Your task to perform on an android device: turn off priority inbox in the gmail app Image 0: 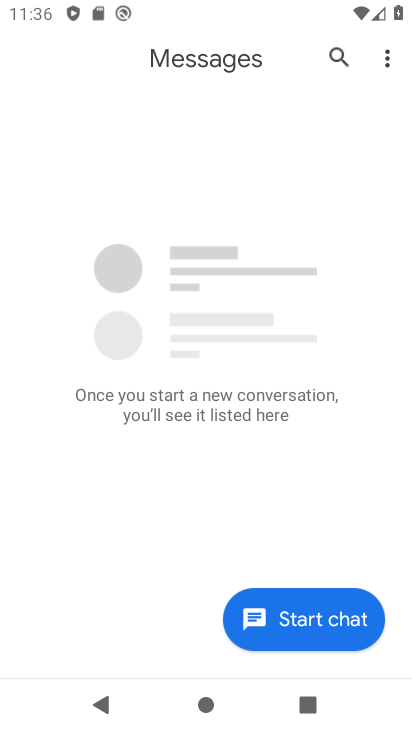
Step 0: press home button
Your task to perform on an android device: turn off priority inbox in the gmail app Image 1: 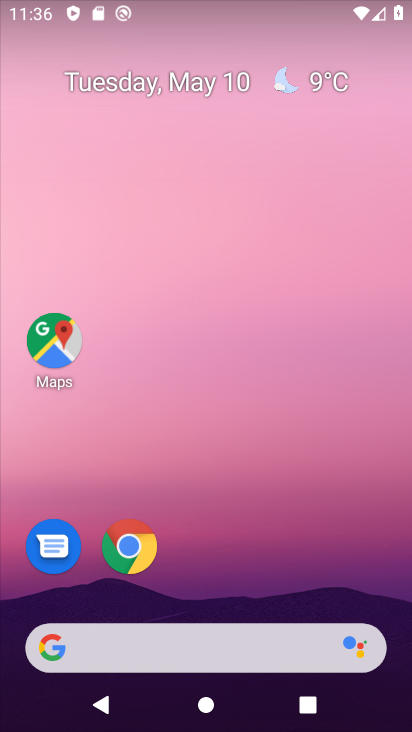
Step 1: drag from (172, 410) to (210, 67)
Your task to perform on an android device: turn off priority inbox in the gmail app Image 2: 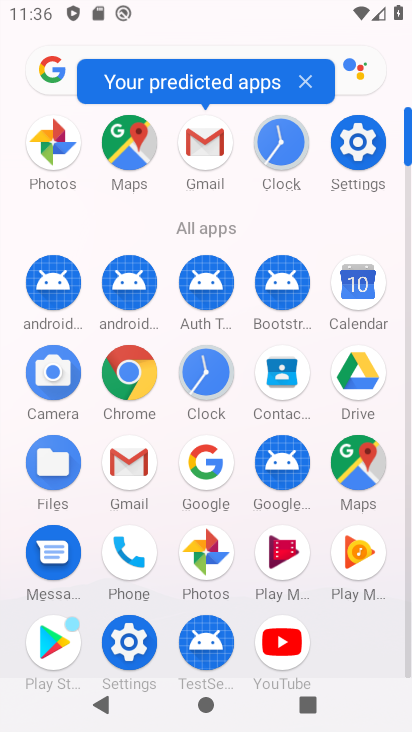
Step 2: click (207, 151)
Your task to perform on an android device: turn off priority inbox in the gmail app Image 3: 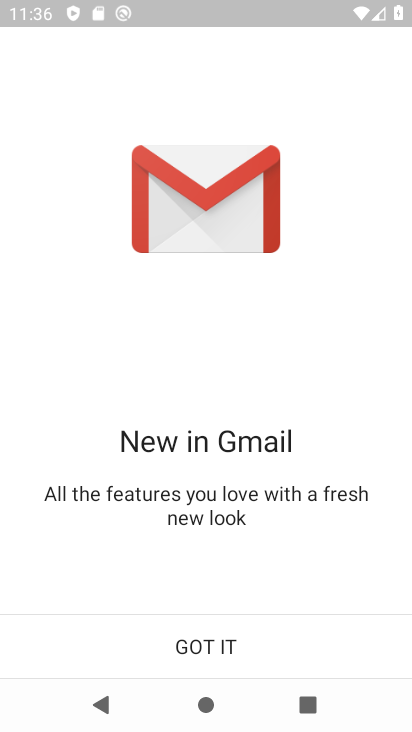
Step 3: click (219, 659)
Your task to perform on an android device: turn off priority inbox in the gmail app Image 4: 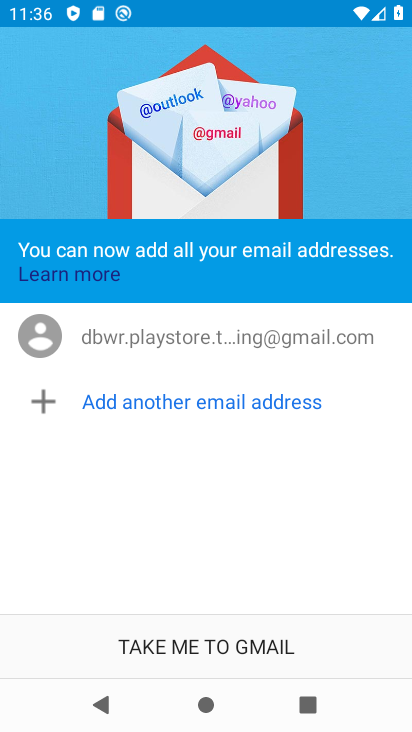
Step 4: click (219, 659)
Your task to perform on an android device: turn off priority inbox in the gmail app Image 5: 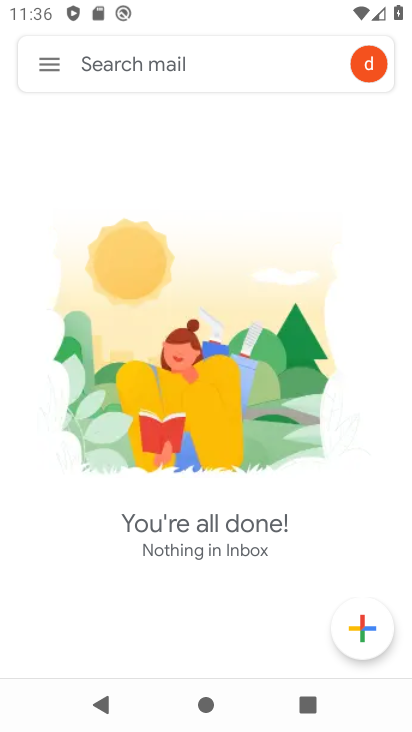
Step 5: click (51, 61)
Your task to perform on an android device: turn off priority inbox in the gmail app Image 6: 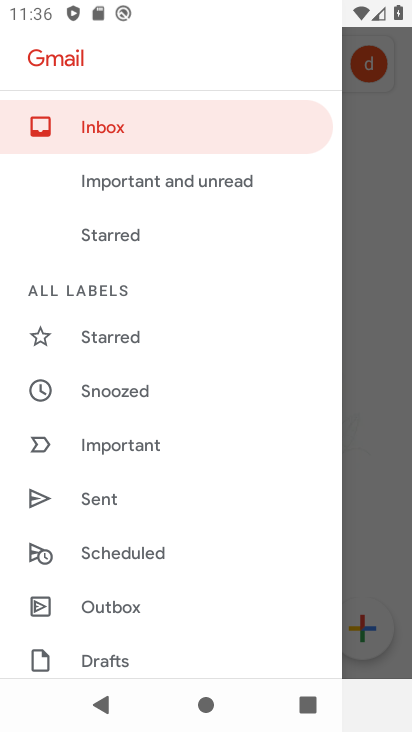
Step 6: drag from (140, 499) to (165, 132)
Your task to perform on an android device: turn off priority inbox in the gmail app Image 7: 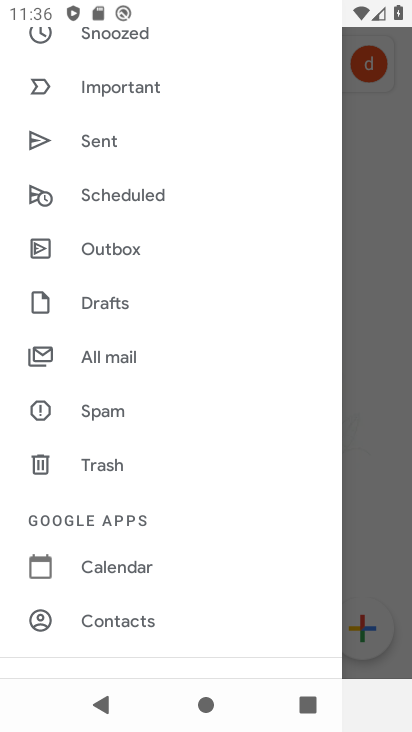
Step 7: drag from (149, 523) to (173, 198)
Your task to perform on an android device: turn off priority inbox in the gmail app Image 8: 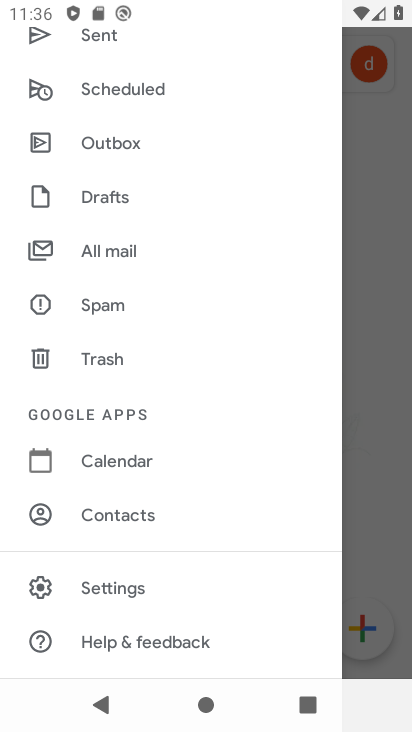
Step 8: click (107, 582)
Your task to perform on an android device: turn off priority inbox in the gmail app Image 9: 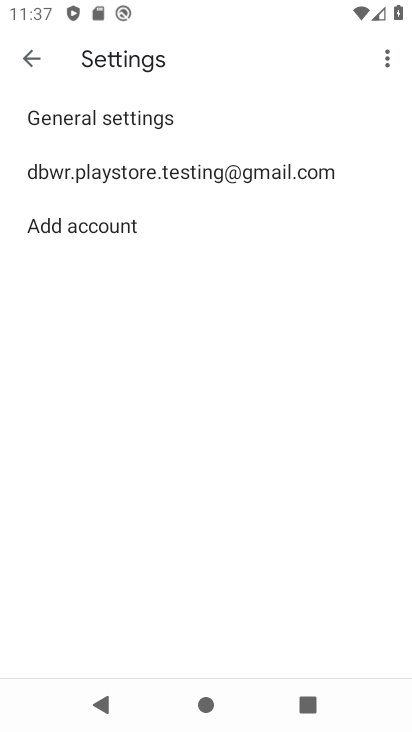
Step 9: click (188, 182)
Your task to perform on an android device: turn off priority inbox in the gmail app Image 10: 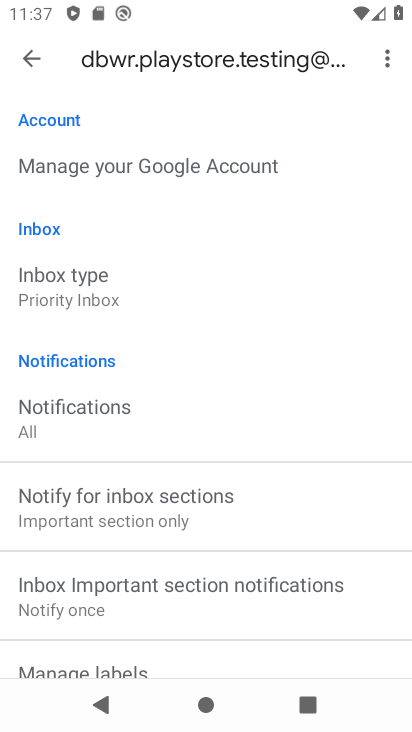
Step 10: drag from (151, 504) to (176, 255)
Your task to perform on an android device: turn off priority inbox in the gmail app Image 11: 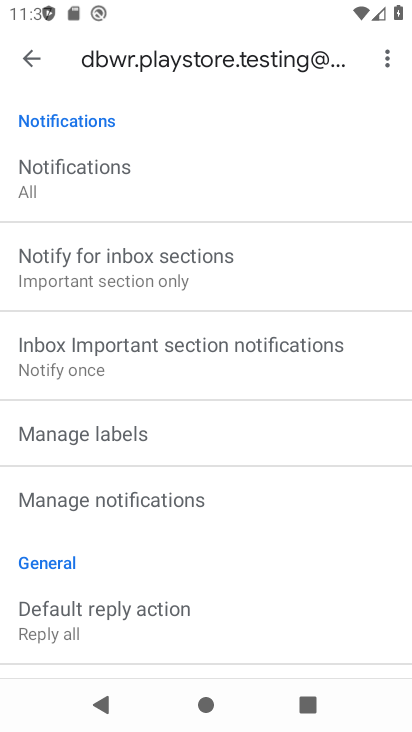
Step 11: drag from (177, 260) to (177, 499)
Your task to perform on an android device: turn off priority inbox in the gmail app Image 12: 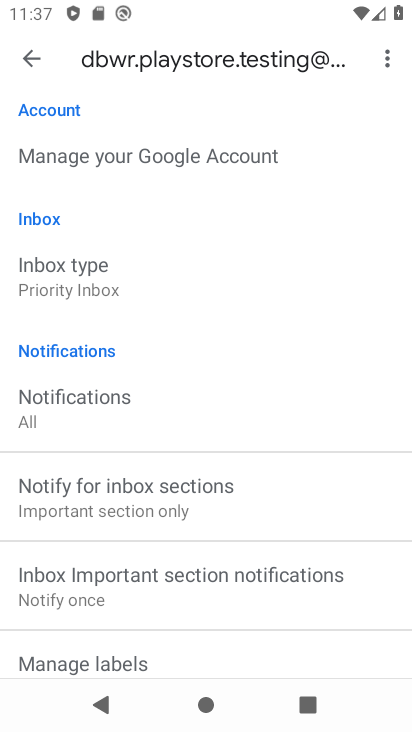
Step 12: click (108, 293)
Your task to perform on an android device: turn off priority inbox in the gmail app Image 13: 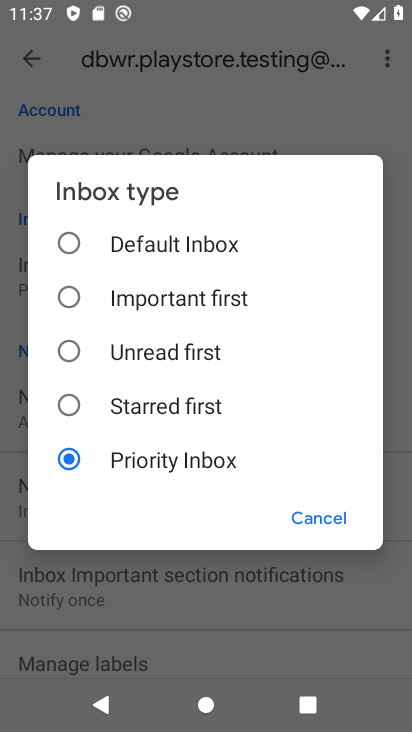
Step 13: click (78, 247)
Your task to perform on an android device: turn off priority inbox in the gmail app Image 14: 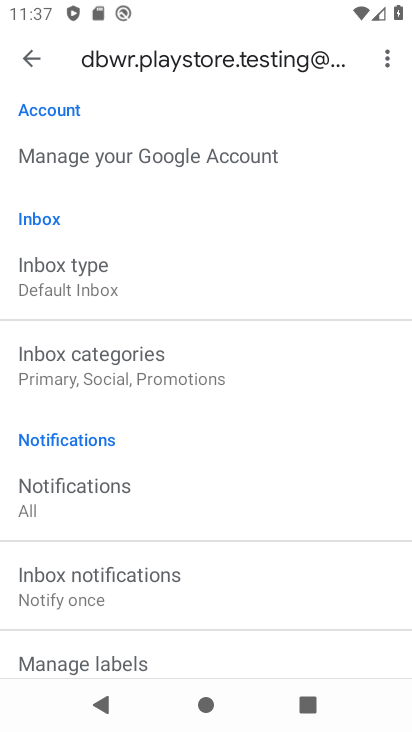
Step 14: task complete